Your task to perform on an android device: change the clock display to analog Image 0: 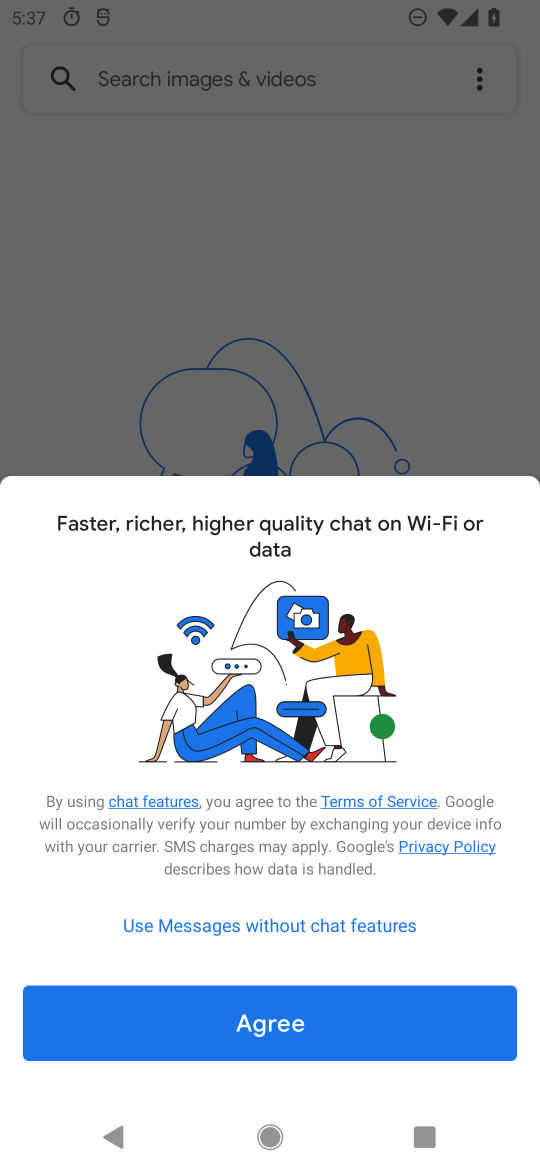
Step 0: press home button
Your task to perform on an android device: change the clock display to analog Image 1: 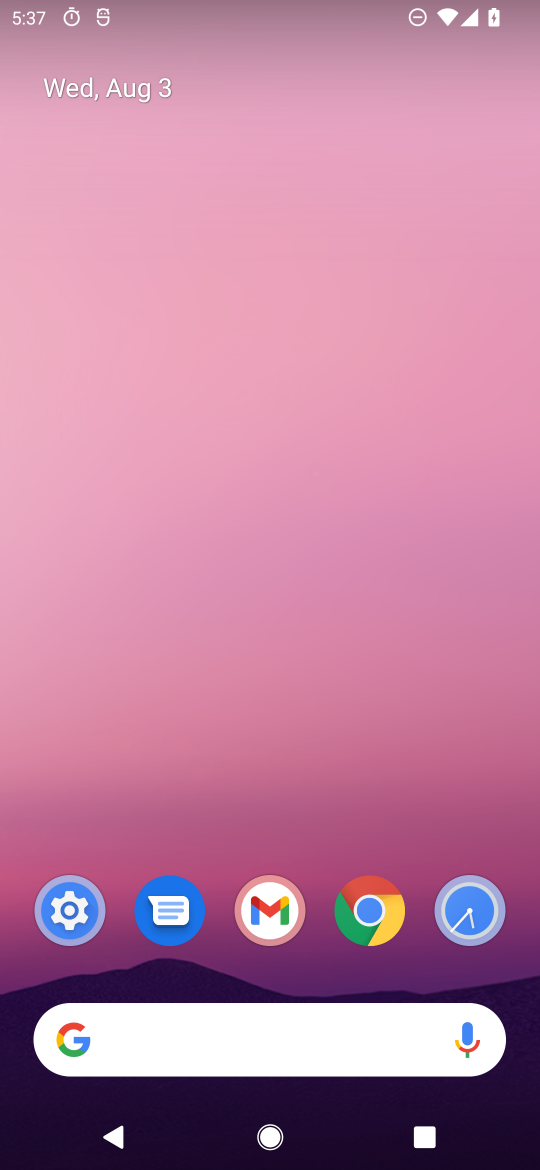
Step 1: drag from (63, 1151) to (296, 319)
Your task to perform on an android device: change the clock display to analog Image 2: 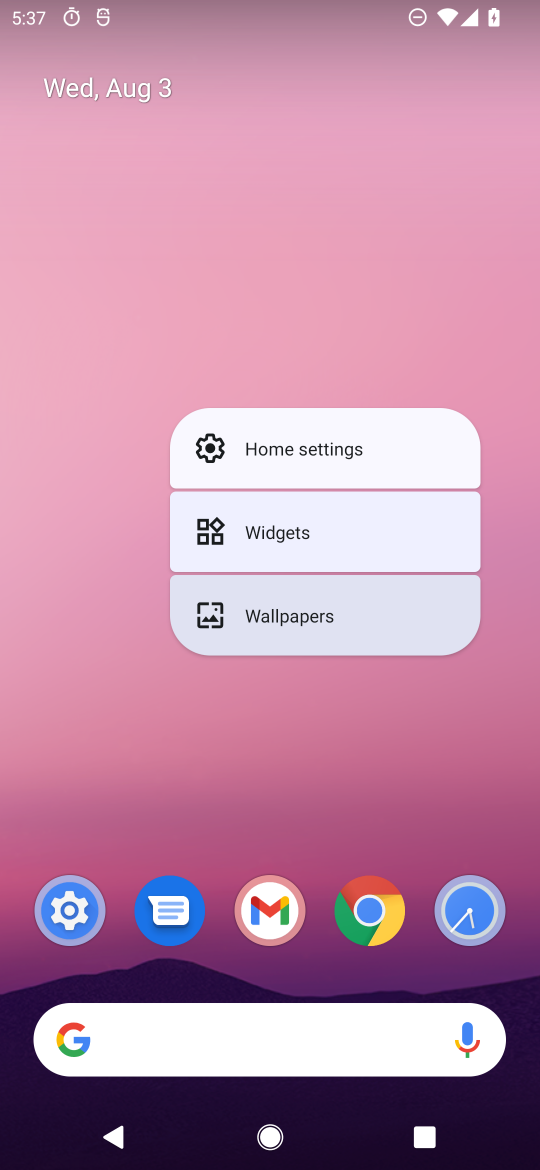
Step 2: click (477, 911)
Your task to perform on an android device: change the clock display to analog Image 3: 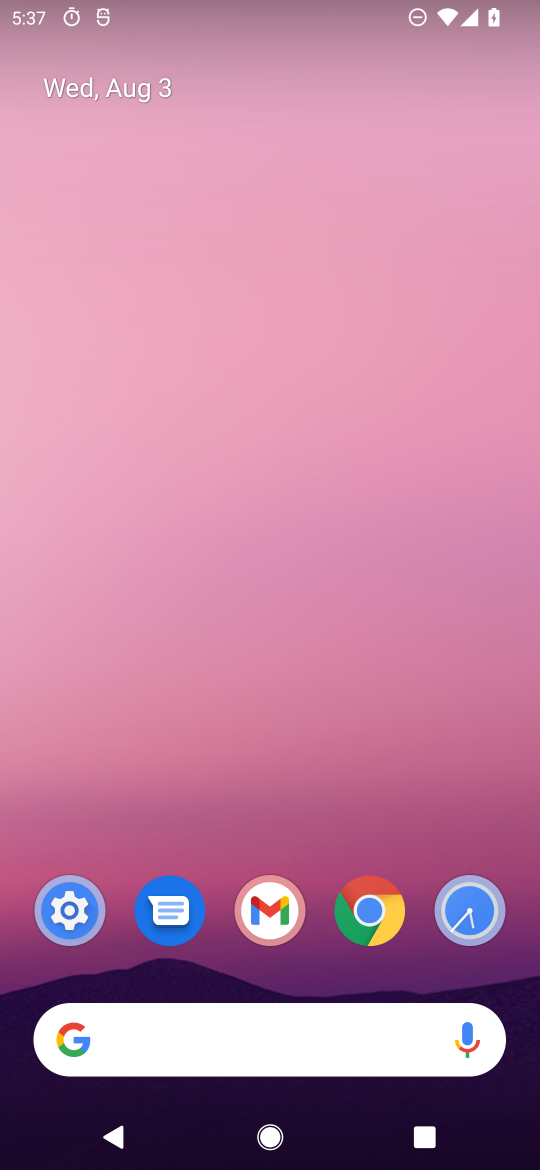
Step 3: click (473, 911)
Your task to perform on an android device: change the clock display to analog Image 4: 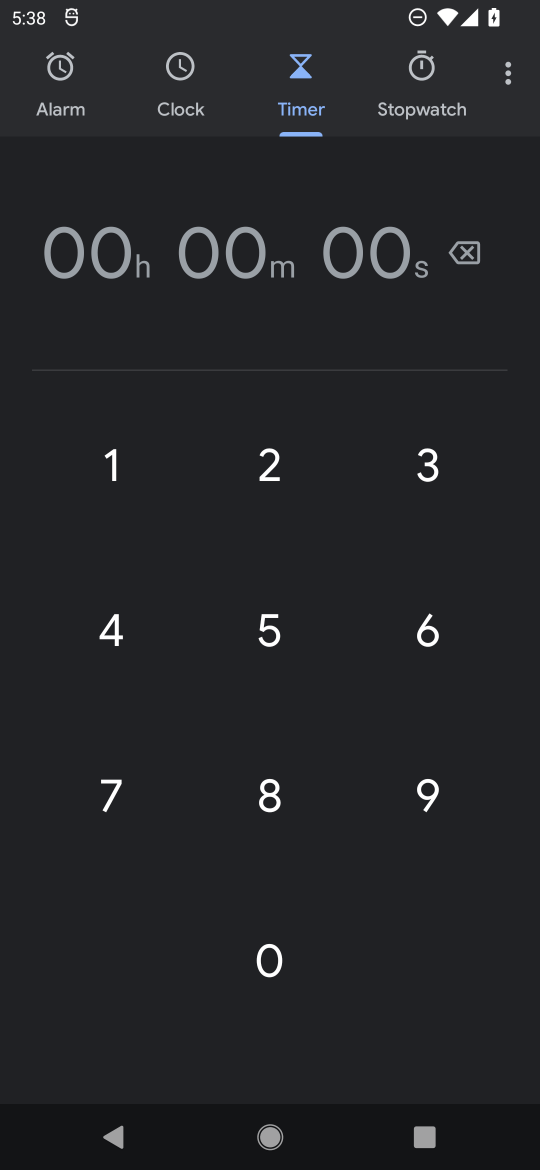
Step 4: click (163, 92)
Your task to perform on an android device: change the clock display to analog Image 5: 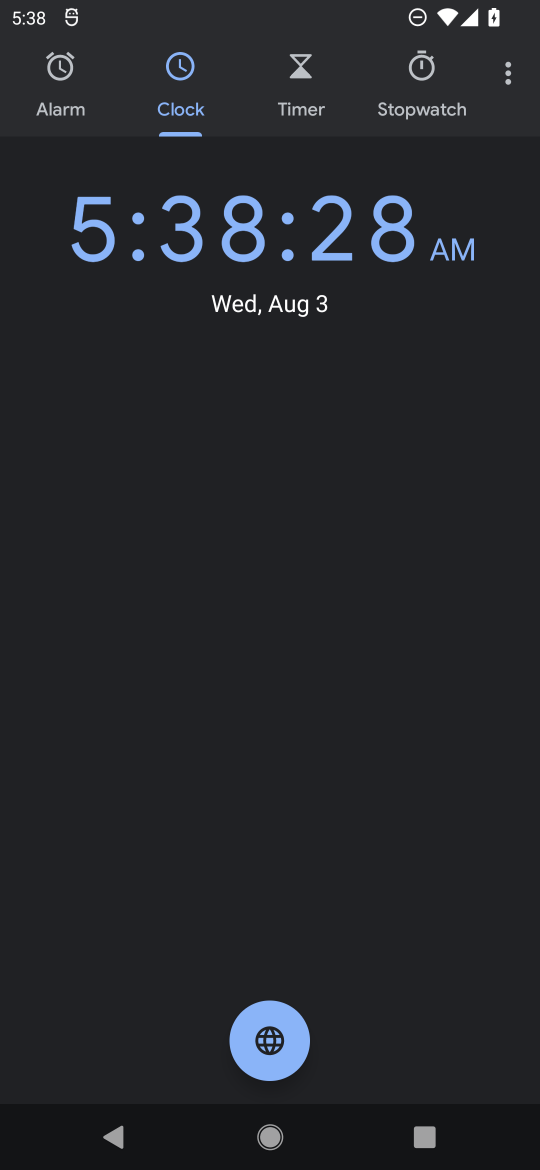
Step 5: click (500, 78)
Your task to perform on an android device: change the clock display to analog Image 6: 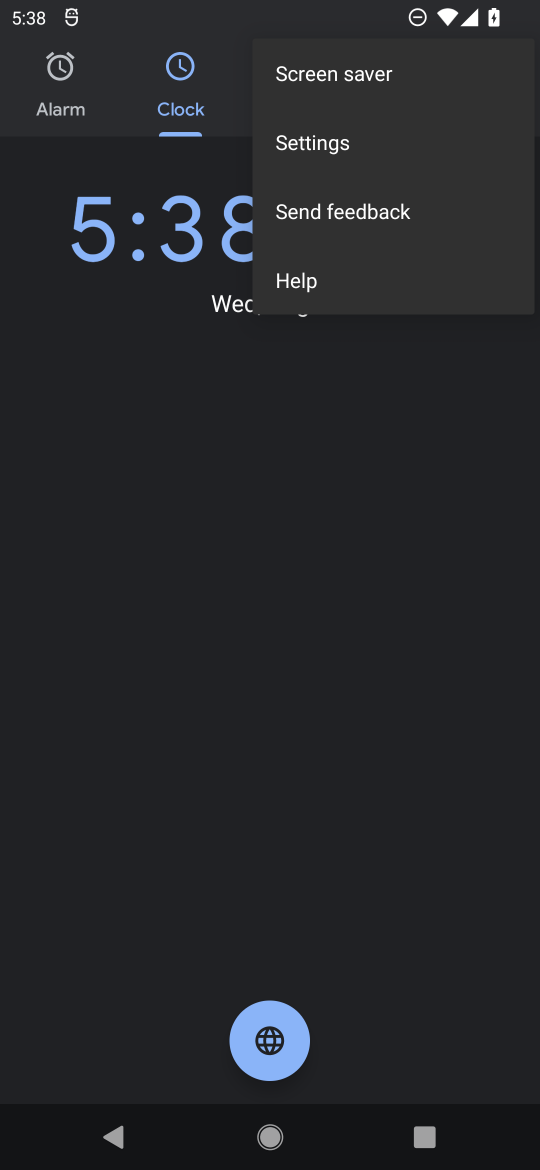
Step 6: click (309, 130)
Your task to perform on an android device: change the clock display to analog Image 7: 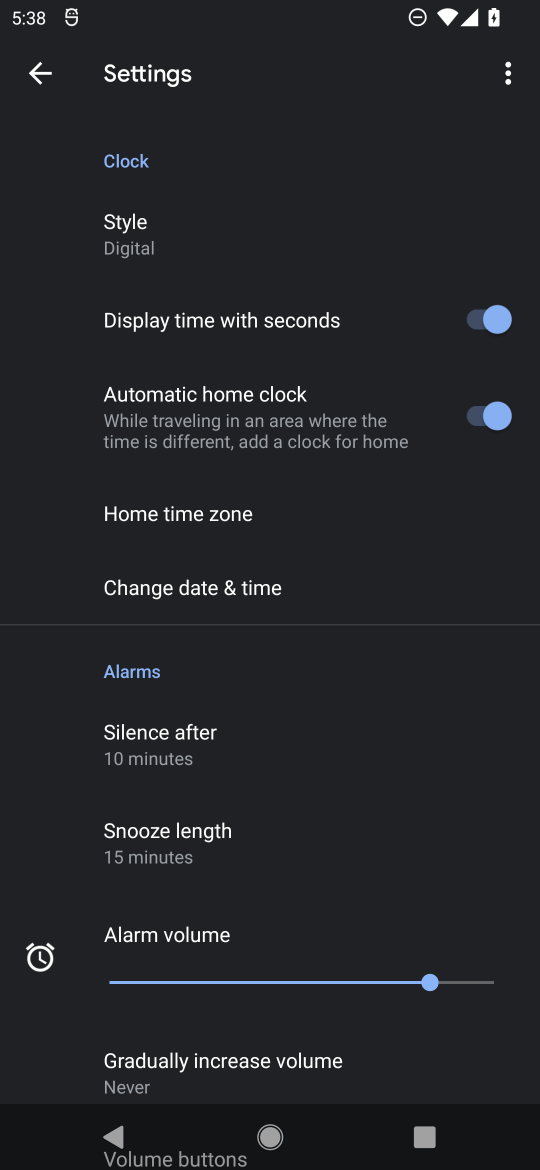
Step 7: click (181, 255)
Your task to perform on an android device: change the clock display to analog Image 8: 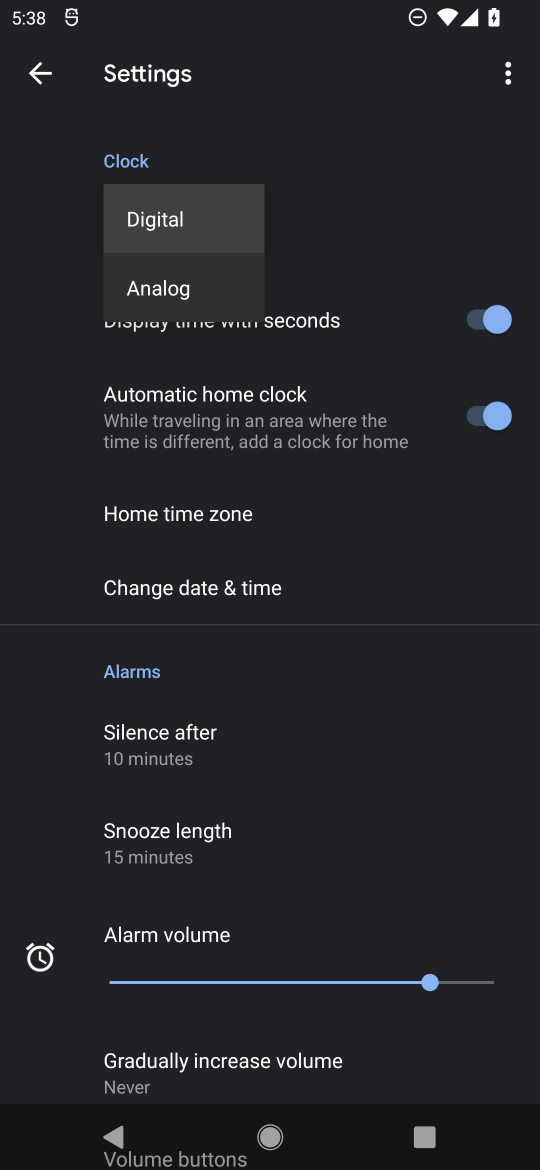
Step 8: click (196, 294)
Your task to perform on an android device: change the clock display to analog Image 9: 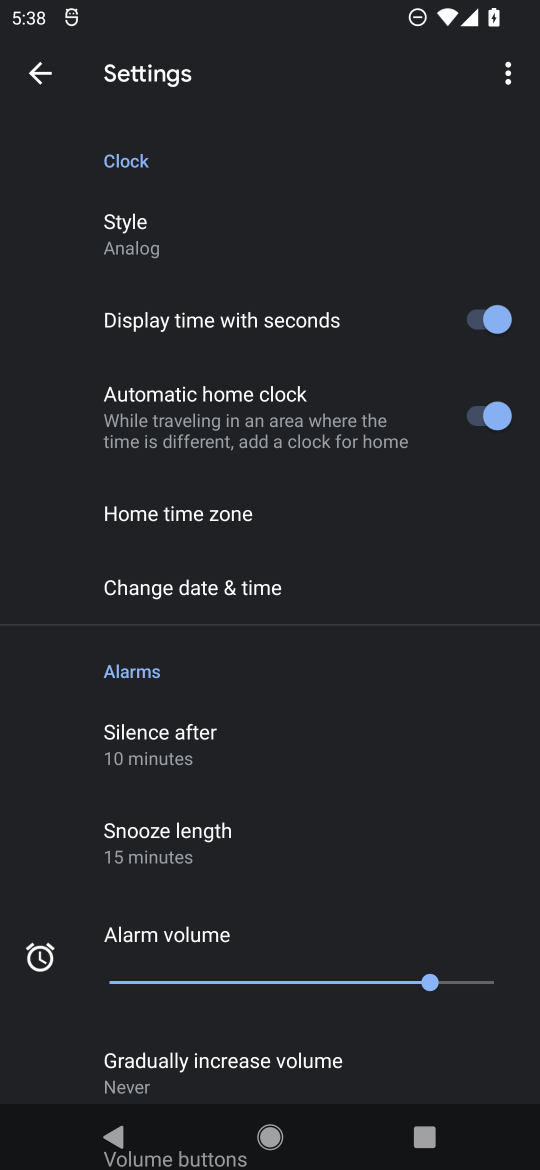
Step 9: task complete